Your task to perform on an android device: open a bookmark in the chrome app Image 0: 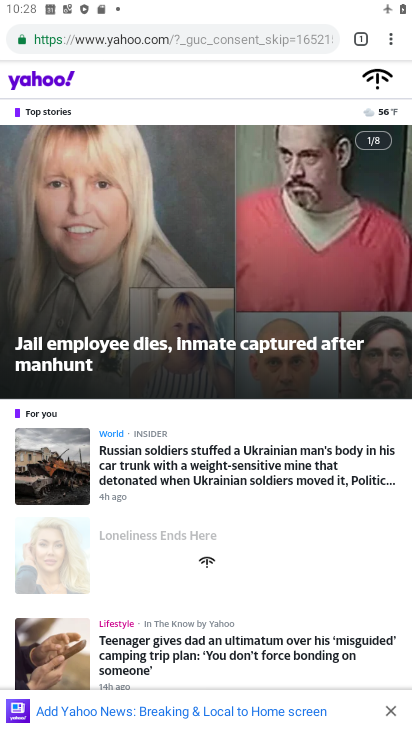
Step 0: click (386, 40)
Your task to perform on an android device: open a bookmark in the chrome app Image 1: 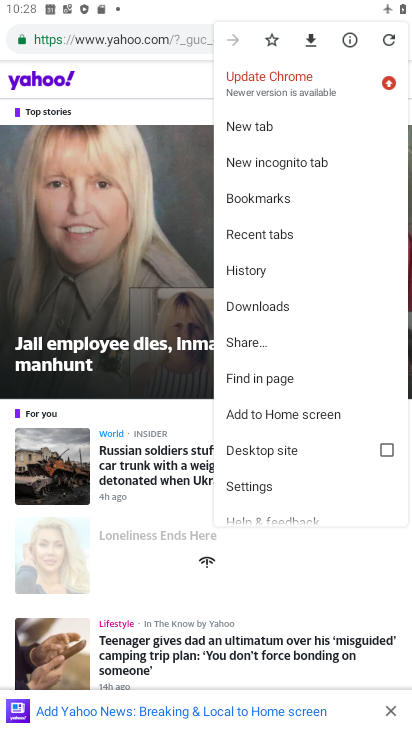
Step 1: click (294, 204)
Your task to perform on an android device: open a bookmark in the chrome app Image 2: 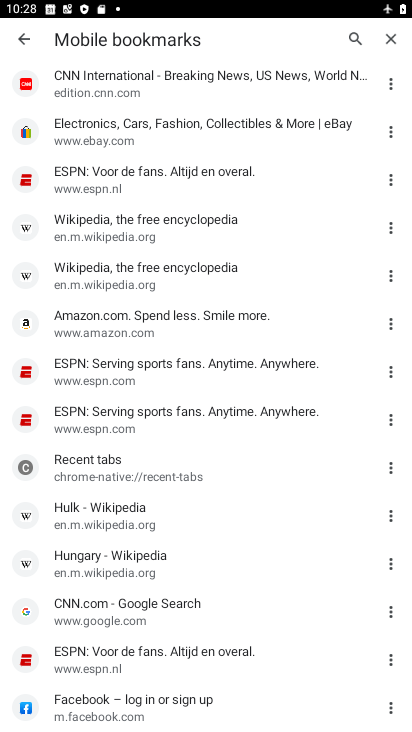
Step 2: click (196, 229)
Your task to perform on an android device: open a bookmark in the chrome app Image 3: 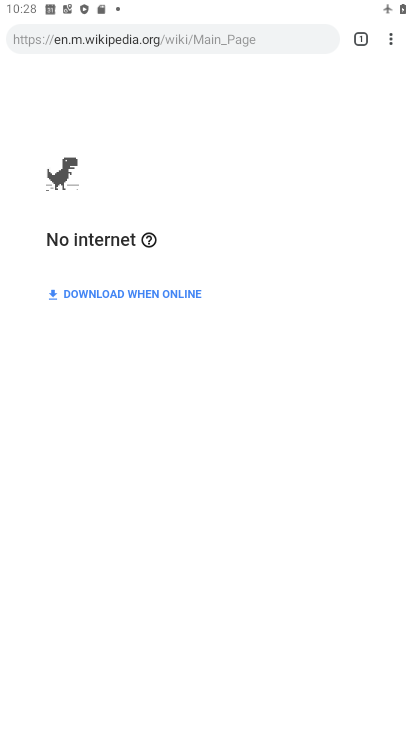
Step 3: task complete